Your task to perform on an android device: Open Yahoo.com Image 0: 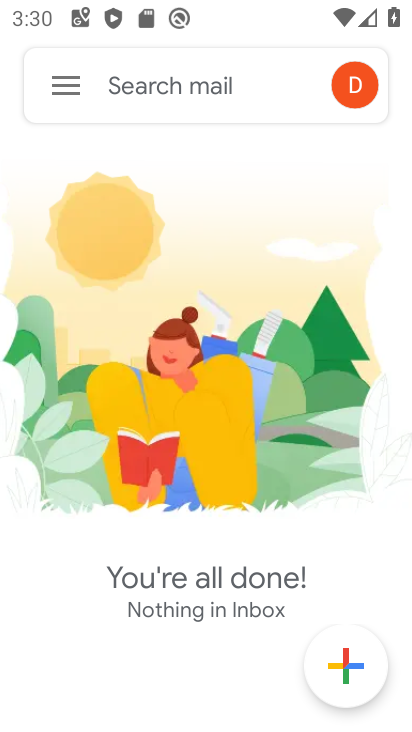
Step 0: press home button
Your task to perform on an android device: Open Yahoo.com Image 1: 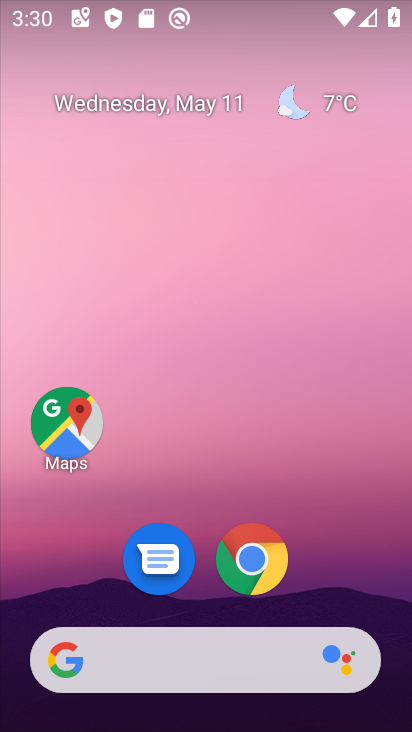
Step 1: drag from (150, 630) to (128, 267)
Your task to perform on an android device: Open Yahoo.com Image 2: 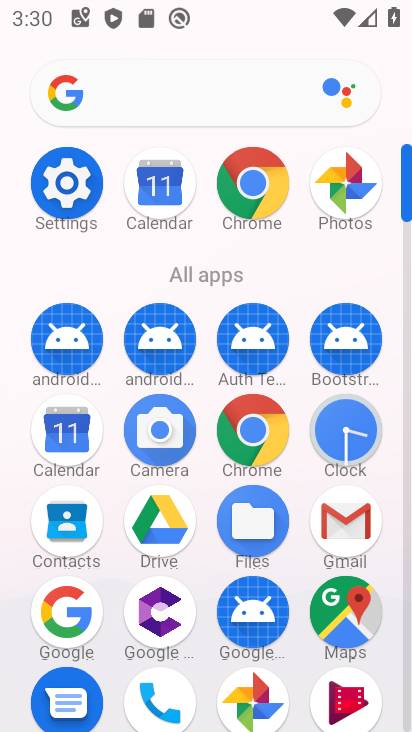
Step 2: click (245, 191)
Your task to perform on an android device: Open Yahoo.com Image 3: 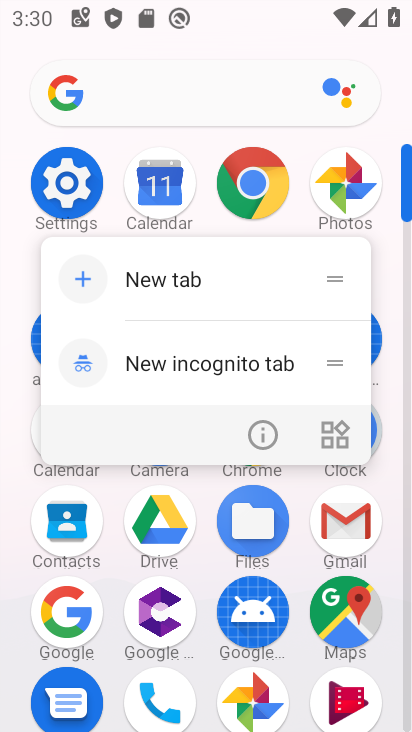
Step 3: click (245, 193)
Your task to perform on an android device: Open Yahoo.com Image 4: 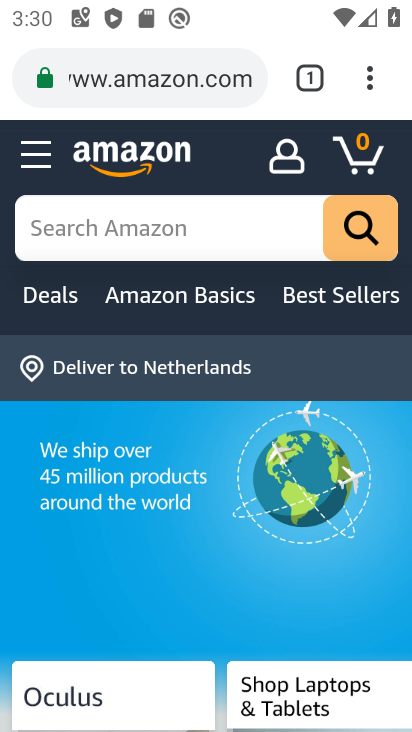
Step 4: click (307, 75)
Your task to perform on an android device: Open Yahoo.com Image 5: 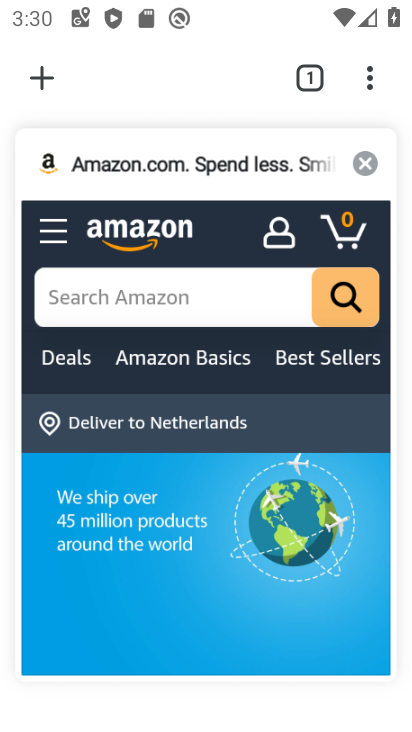
Step 5: click (365, 165)
Your task to perform on an android device: Open Yahoo.com Image 6: 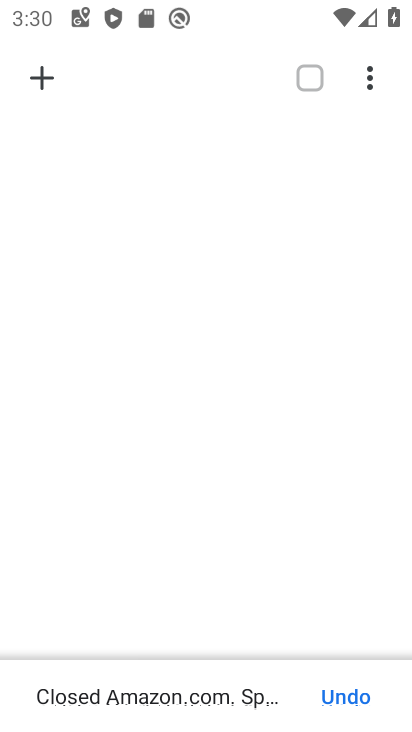
Step 6: click (49, 80)
Your task to perform on an android device: Open Yahoo.com Image 7: 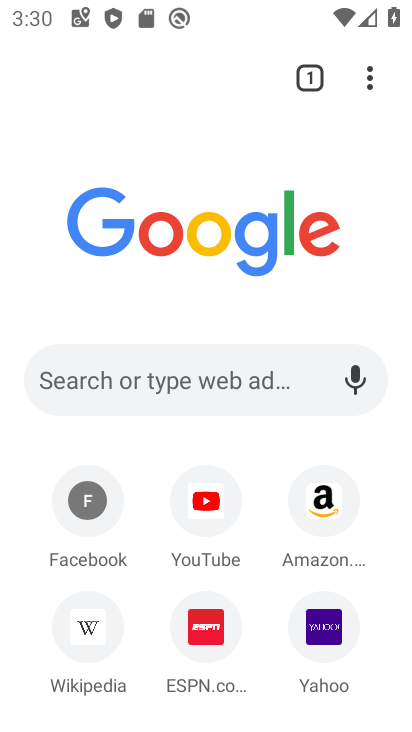
Step 7: click (307, 643)
Your task to perform on an android device: Open Yahoo.com Image 8: 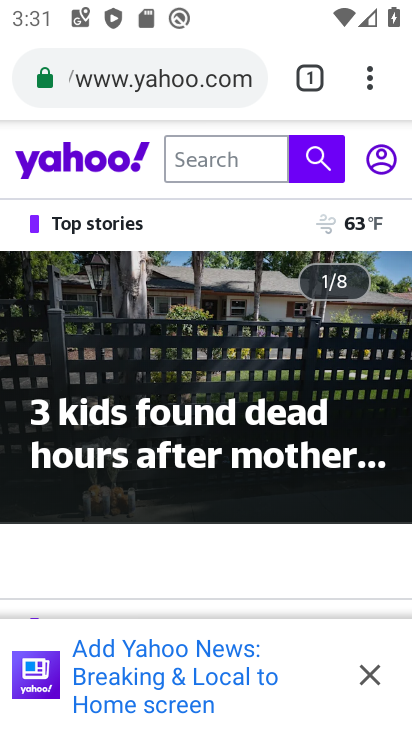
Step 8: click (377, 678)
Your task to perform on an android device: Open Yahoo.com Image 9: 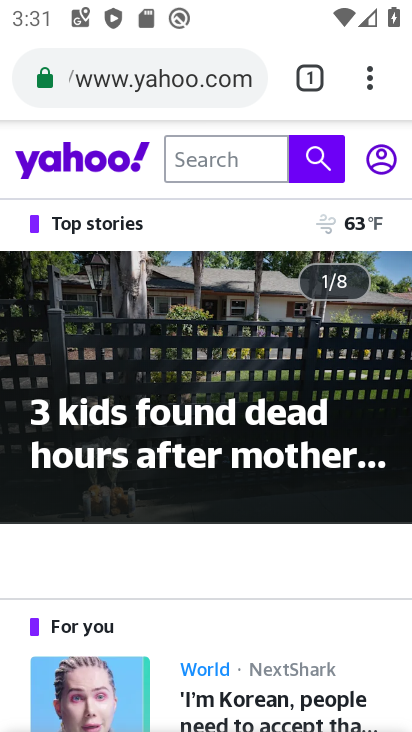
Step 9: task complete